Your task to perform on an android device: Show me recent news Image 0: 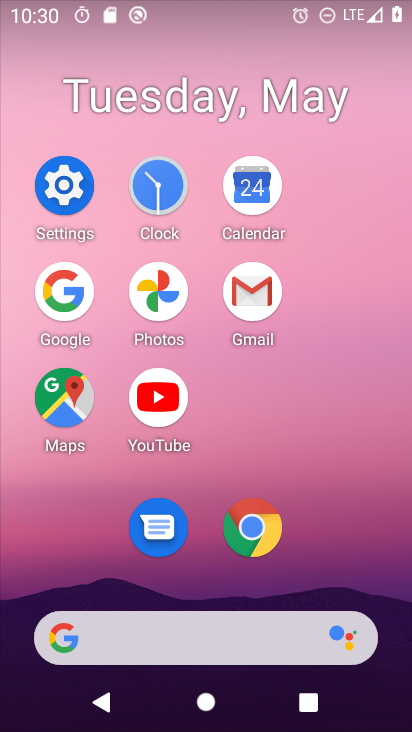
Step 0: click (69, 267)
Your task to perform on an android device: Show me recent news Image 1: 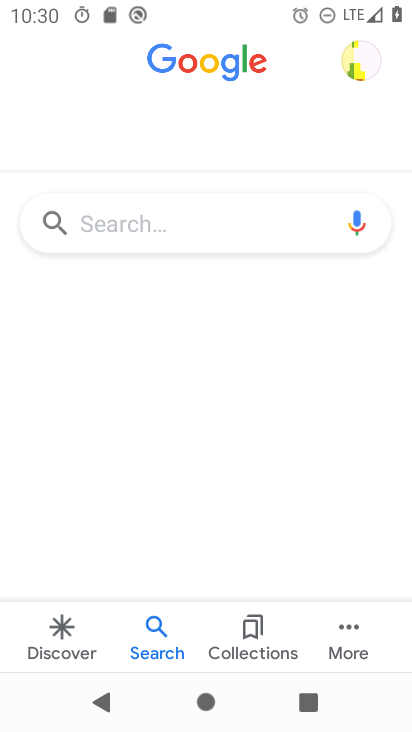
Step 1: click (135, 227)
Your task to perform on an android device: Show me recent news Image 2: 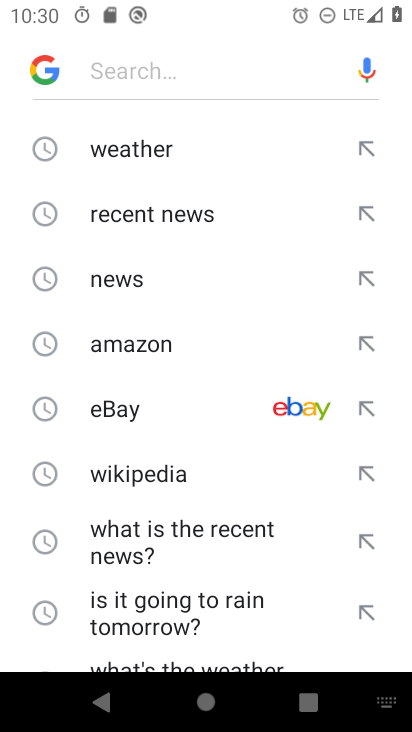
Step 2: click (138, 224)
Your task to perform on an android device: Show me recent news Image 3: 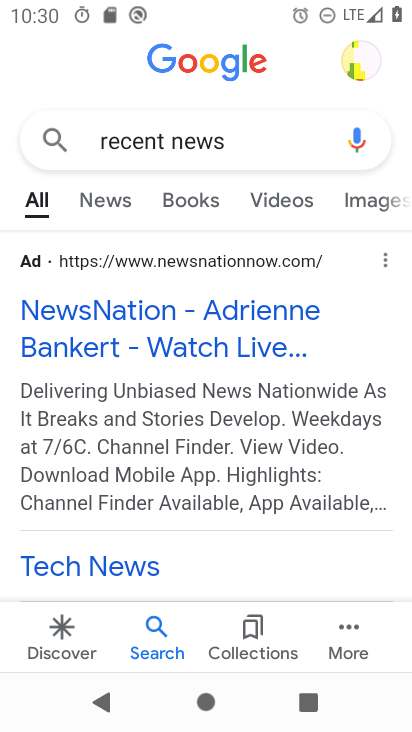
Step 3: task complete